Your task to perform on an android device: turn off improve location accuracy Image 0: 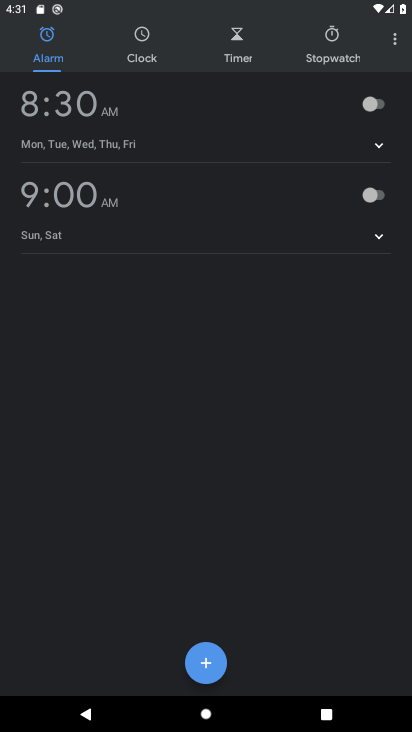
Step 0: press home button
Your task to perform on an android device: turn off improve location accuracy Image 1: 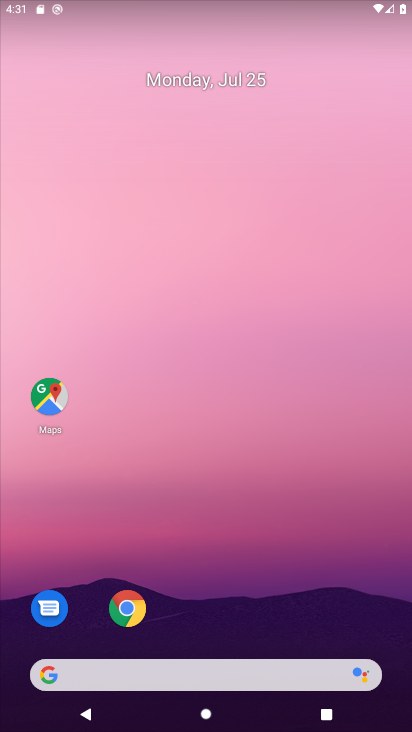
Step 1: drag from (223, 614) to (212, 0)
Your task to perform on an android device: turn off improve location accuracy Image 2: 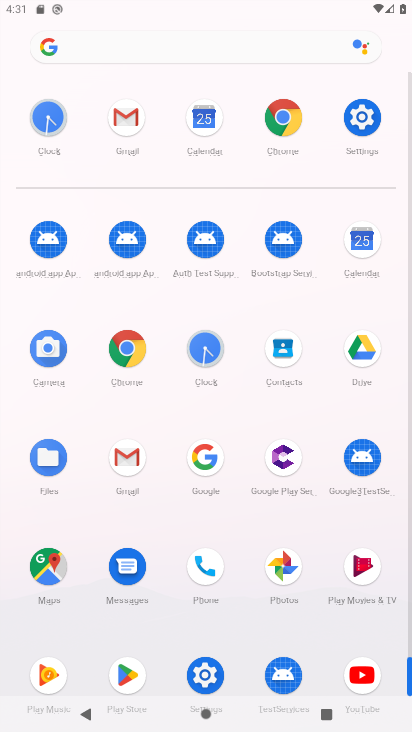
Step 2: click (201, 668)
Your task to perform on an android device: turn off improve location accuracy Image 3: 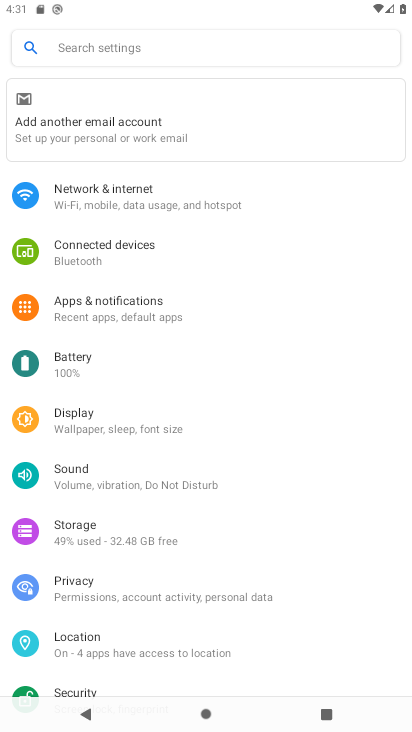
Step 3: click (120, 656)
Your task to perform on an android device: turn off improve location accuracy Image 4: 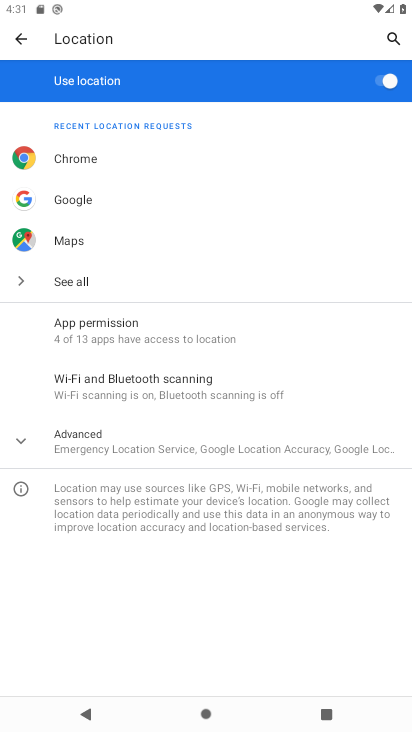
Step 4: click (149, 446)
Your task to perform on an android device: turn off improve location accuracy Image 5: 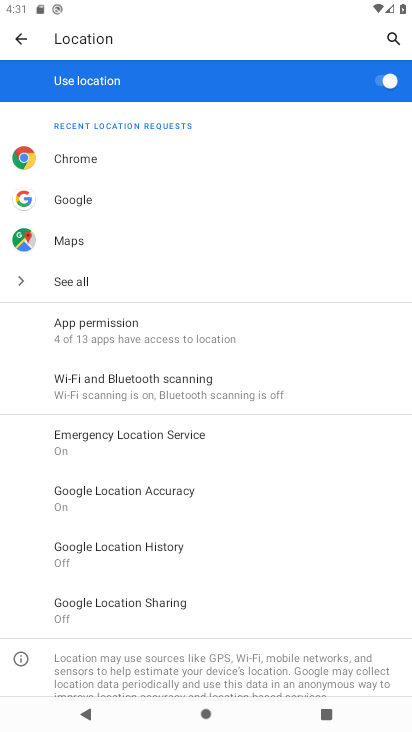
Step 5: click (175, 495)
Your task to perform on an android device: turn off improve location accuracy Image 6: 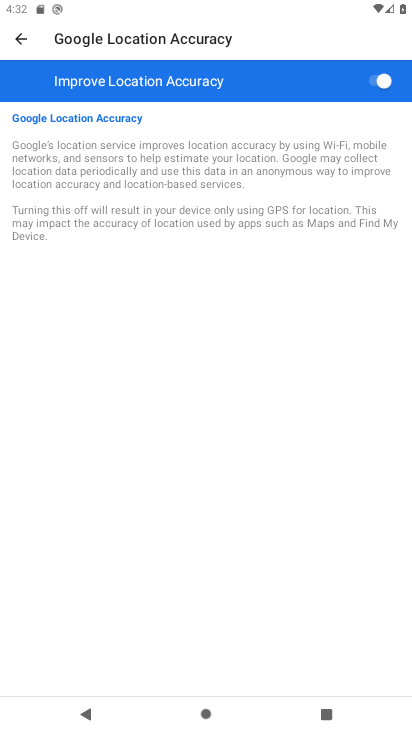
Step 6: click (351, 85)
Your task to perform on an android device: turn off improve location accuracy Image 7: 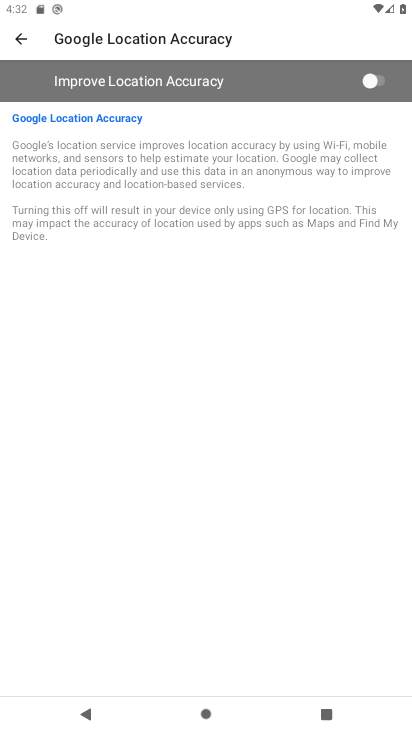
Step 7: task complete